Your task to perform on an android device: all mails in gmail Image 0: 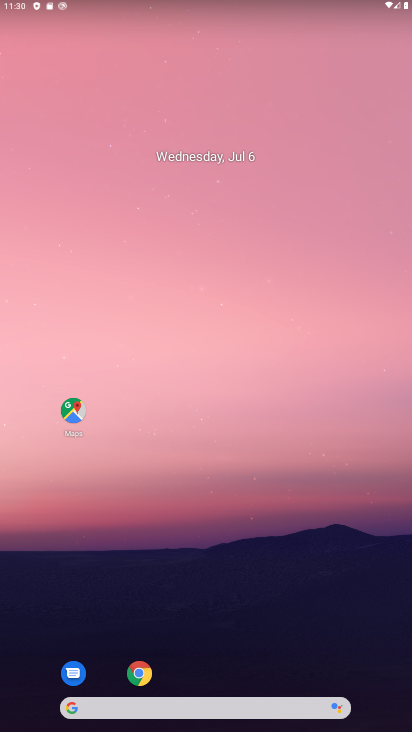
Step 0: drag from (290, 562) to (253, 145)
Your task to perform on an android device: all mails in gmail Image 1: 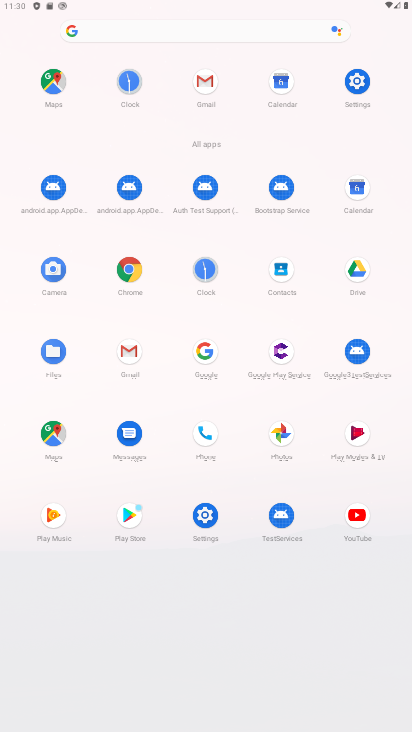
Step 1: click (202, 82)
Your task to perform on an android device: all mails in gmail Image 2: 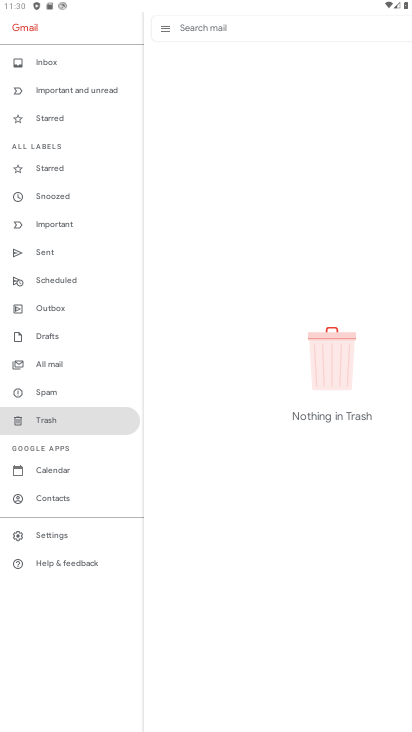
Step 2: click (43, 362)
Your task to perform on an android device: all mails in gmail Image 3: 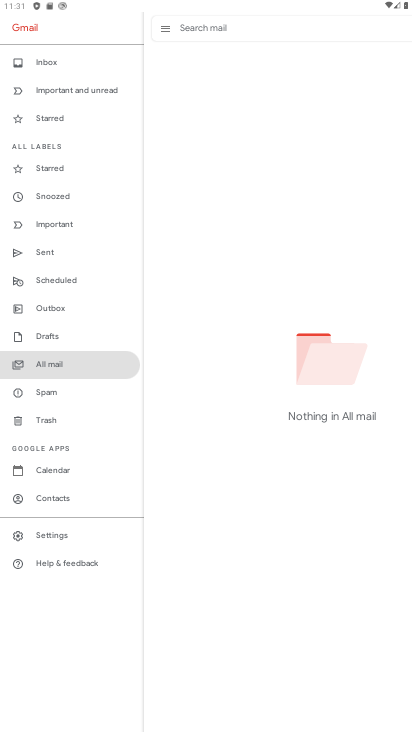
Step 3: task complete